Your task to perform on an android device: Show me recent news Image 0: 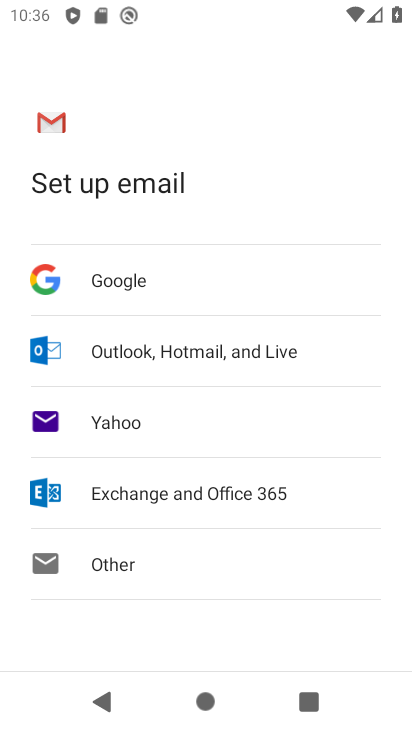
Step 0: press home button
Your task to perform on an android device: Show me recent news Image 1: 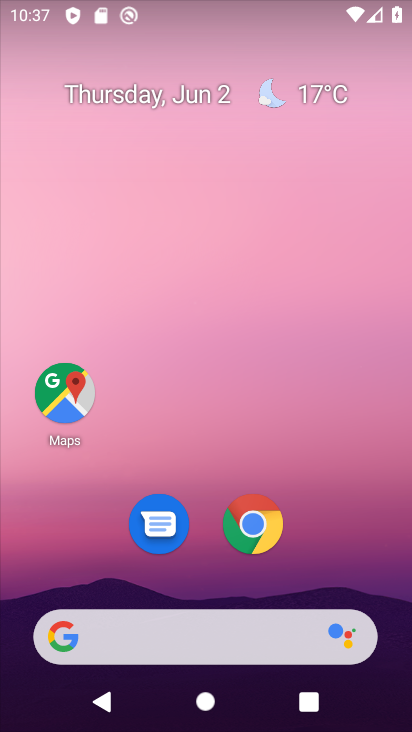
Step 1: click (232, 639)
Your task to perform on an android device: Show me recent news Image 2: 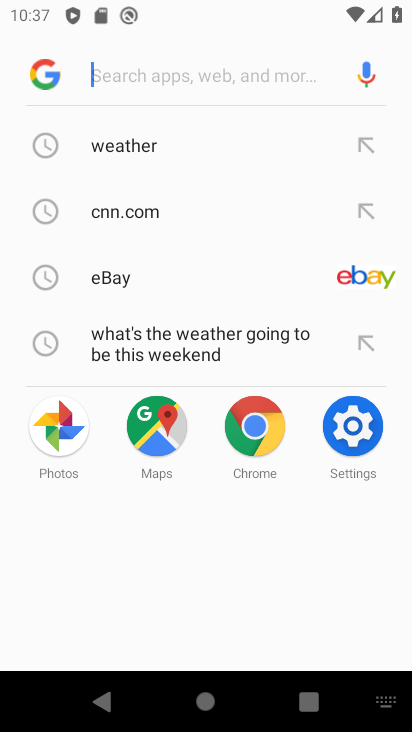
Step 2: type "Recent News"
Your task to perform on an android device: Show me recent news Image 3: 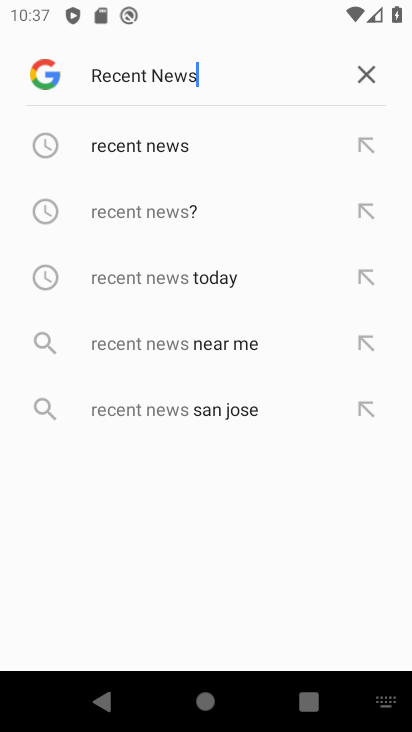
Step 3: click (134, 139)
Your task to perform on an android device: Show me recent news Image 4: 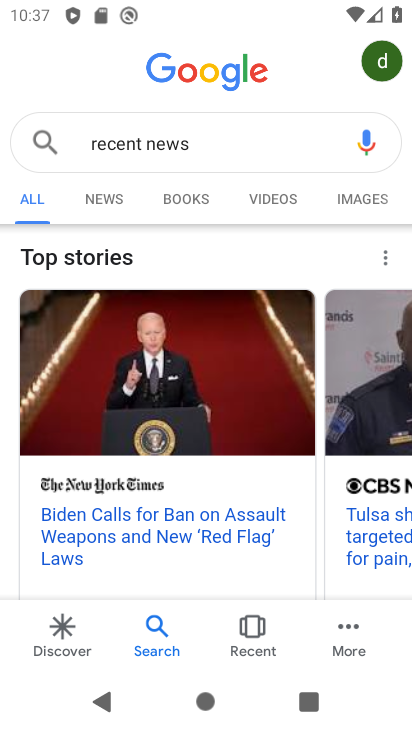
Step 4: click (111, 193)
Your task to perform on an android device: Show me recent news Image 5: 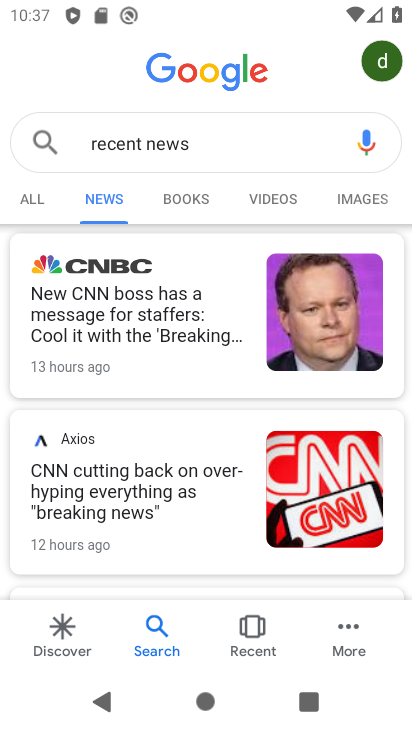
Step 5: task complete